Your task to perform on an android device: turn off data saver in the chrome app Image 0: 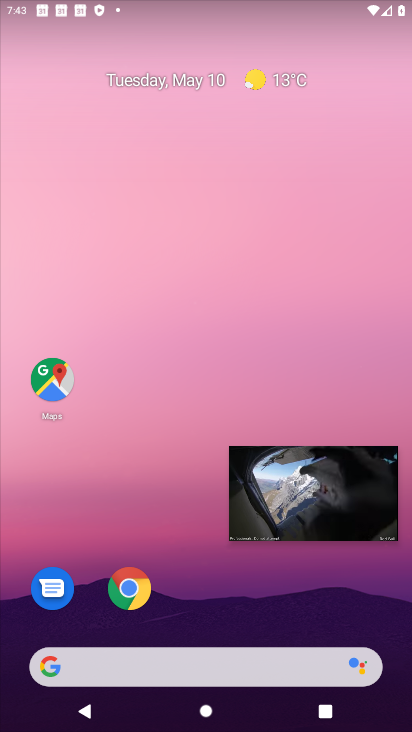
Step 0: click (131, 589)
Your task to perform on an android device: turn off data saver in the chrome app Image 1: 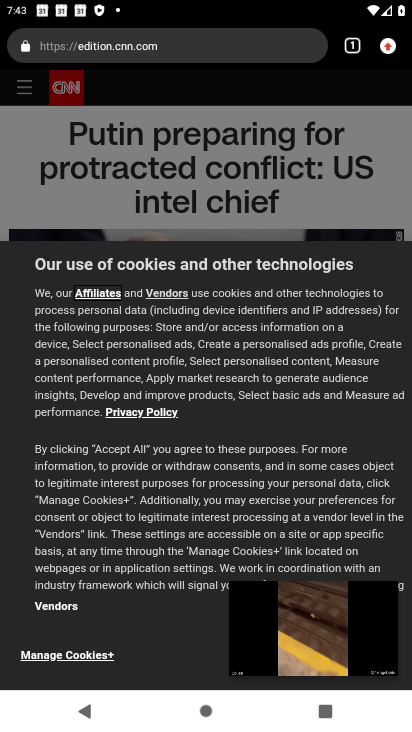
Step 1: drag from (335, 616) to (47, 684)
Your task to perform on an android device: turn off data saver in the chrome app Image 2: 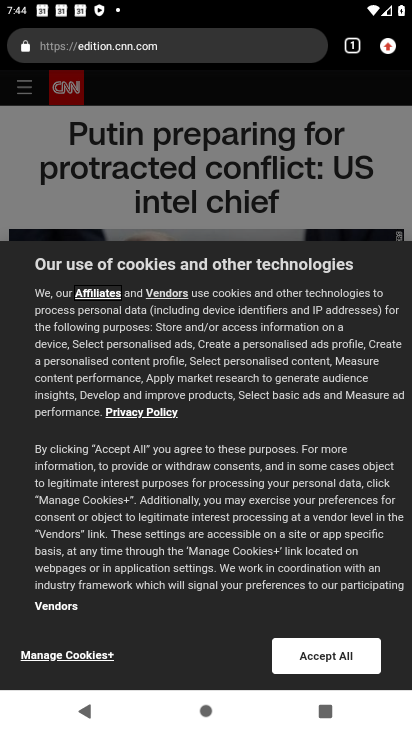
Step 2: click (381, 58)
Your task to perform on an android device: turn off data saver in the chrome app Image 3: 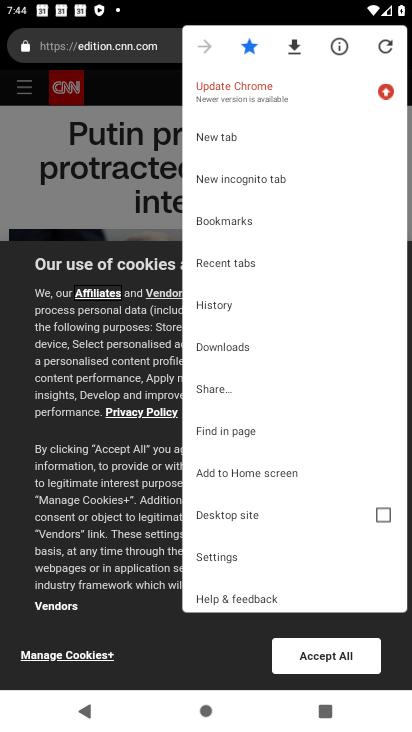
Step 3: click (238, 560)
Your task to perform on an android device: turn off data saver in the chrome app Image 4: 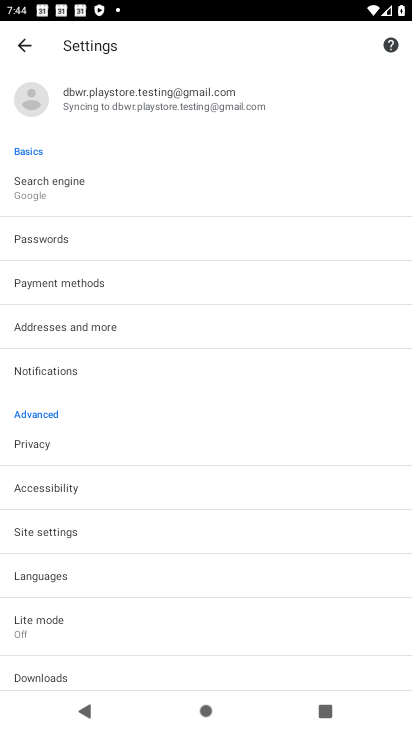
Step 4: click (79, 642)
Your task to perform on an android device: turn off data saver in the chrome app Image 5: 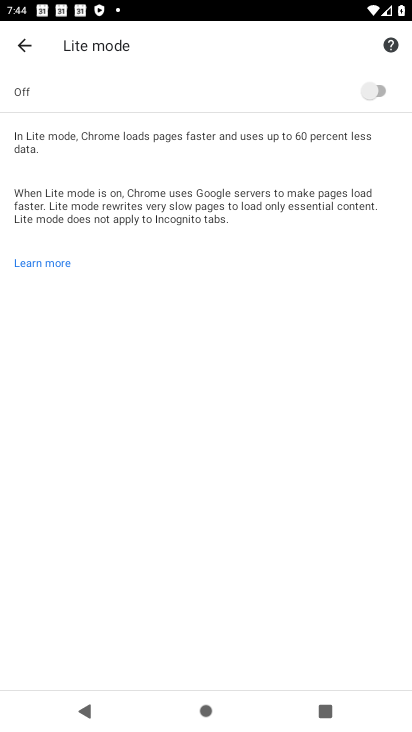
Step 5: task complete